Your task to perform on an android device: change alarm snooze length Image 0: 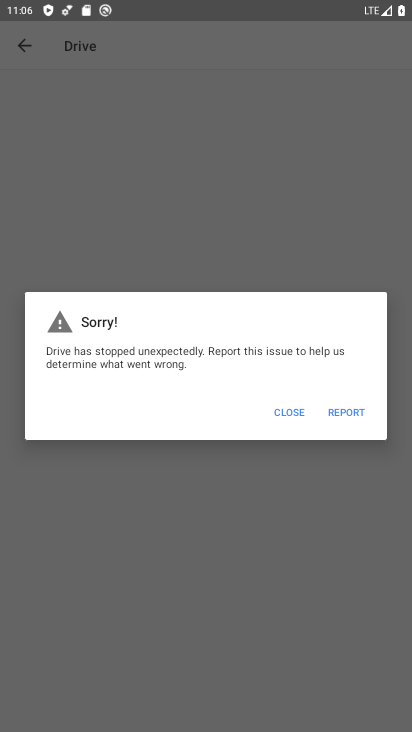
Step 0: press home button
Your task to perform on an android device: change alarm snooze length Image 1: 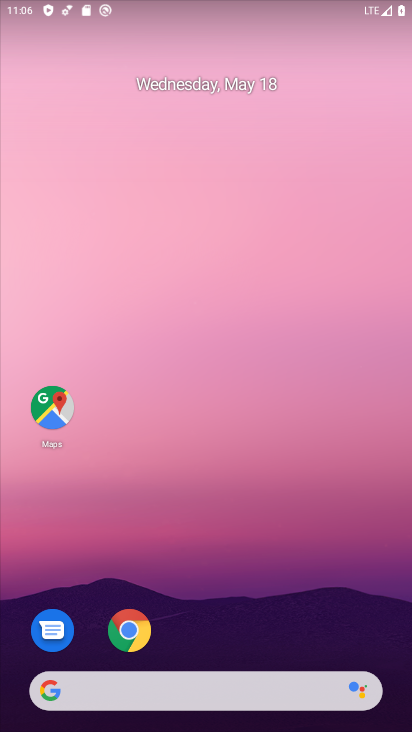
Step 1: drag from (243, 598) to (293, 57)
Your task to perform on an android device: change alarm snooze length Image 2: 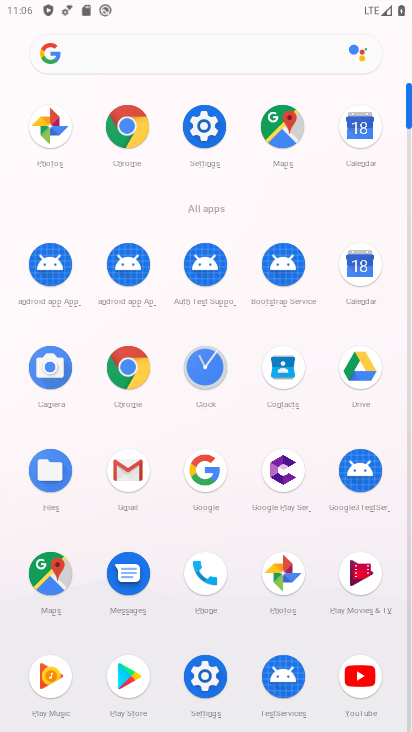
Step 2: click (220, 366)
Your task to perform on an android device: change alarm snooze length Image 3: 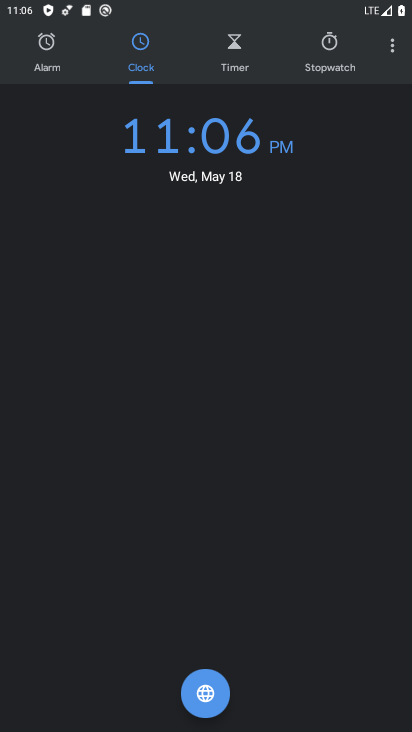
Step 3: click (390, 44)
Your task to perform on an android device: change alarm snooze length Image 4: 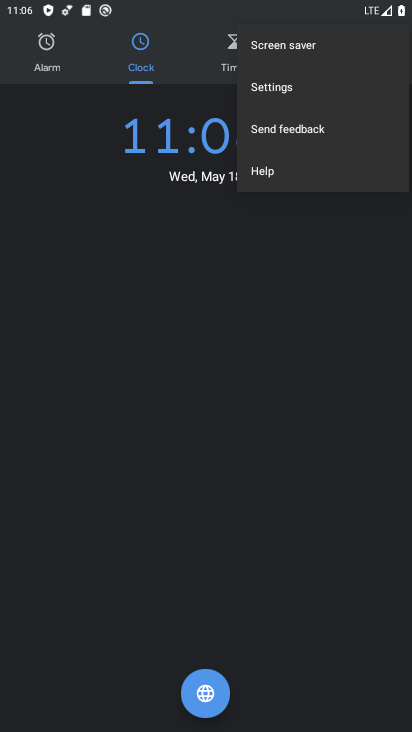
Step 4: click (284, 94)
Your task to perform on an android device: change alarm snooze length Image 5: 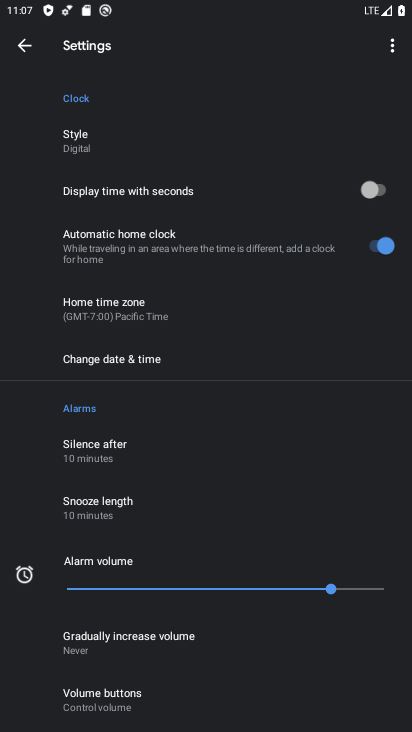
Step 5: click (140, 519)
Your task to perform on an android device: change alarm snooze length Image 6: 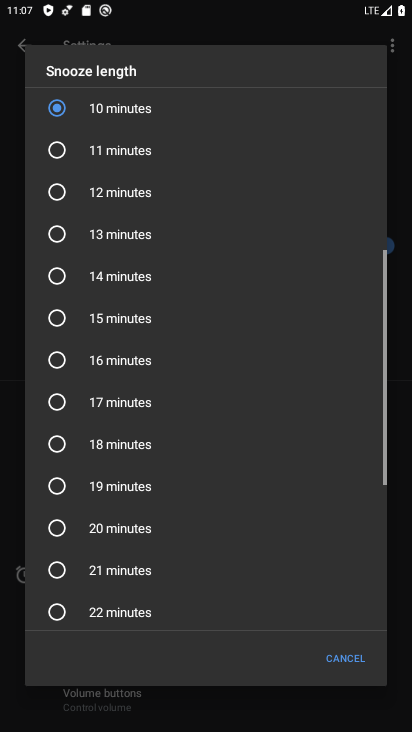
Step 6: click (94, 318)
Your task to perform on an android device: change alarm snooze length Image 7: 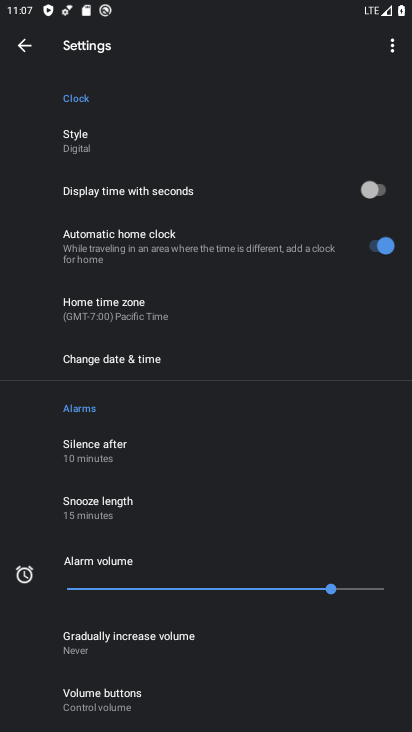
Step 7: task complete